Your task to perform on an android device: See recent photos Image 0: 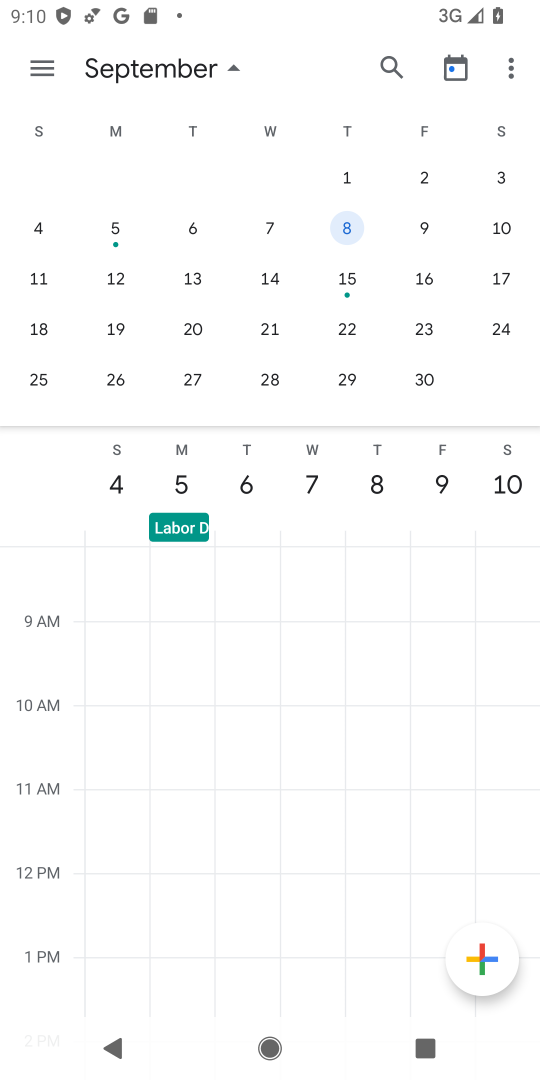
Step 0: press home button
Your task to perform on an android device: See recent photos Image 1: 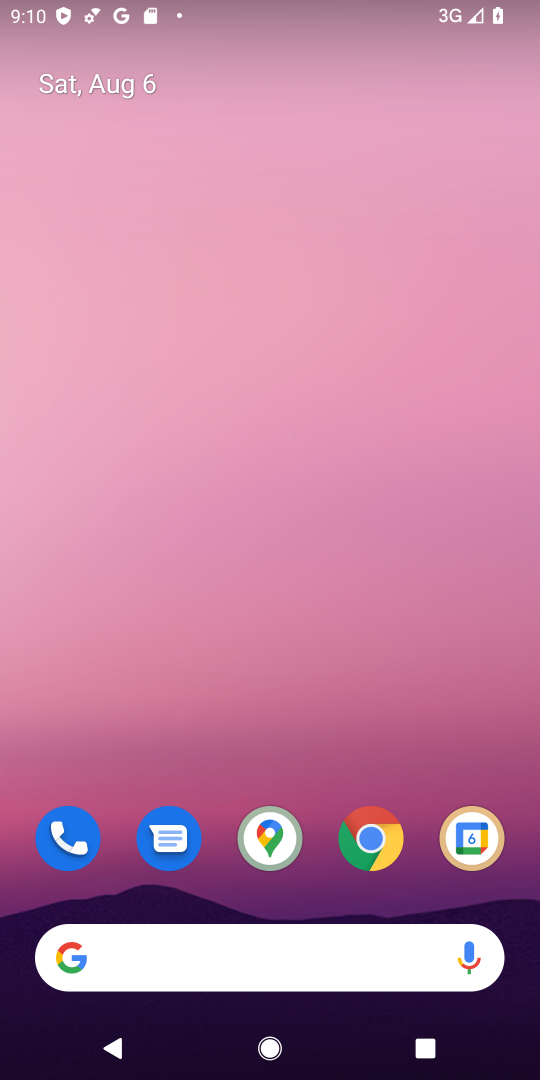
Step 1: drag from (339, 764) to (281, 28)
Your task to perform on an android device: See recent photos Image 2: 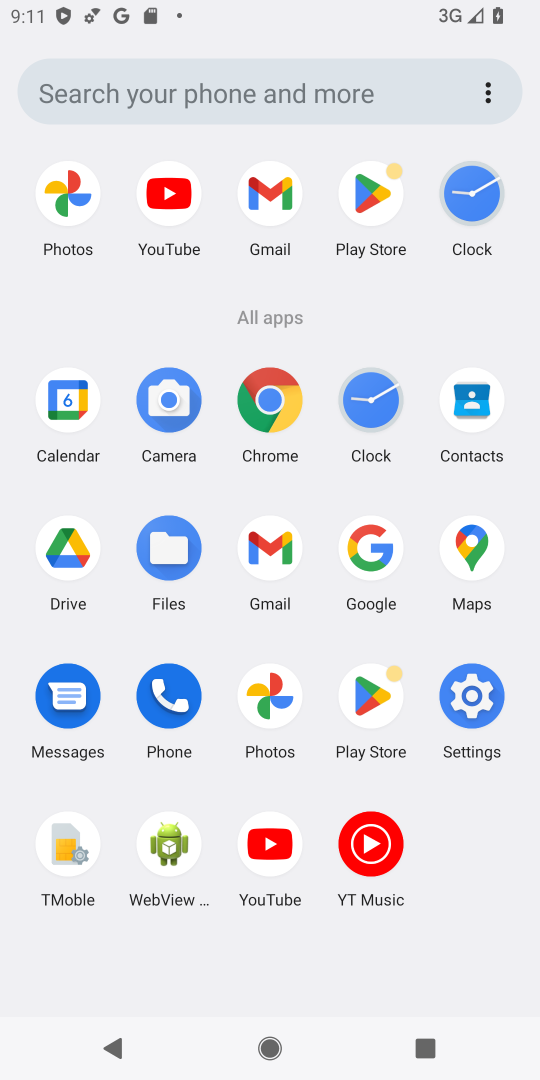
Step 2: click (270, 696)
Your task to perform on an android device: See recent photos Image 3: 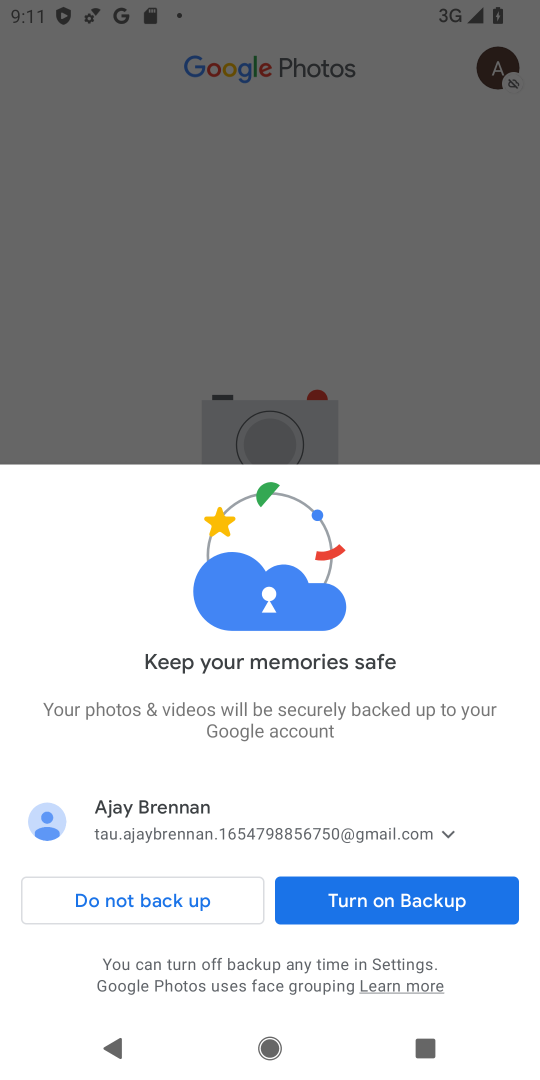
Step 3: click (401, 896)
Your task to perform on an android device: See recent photos Image 4: 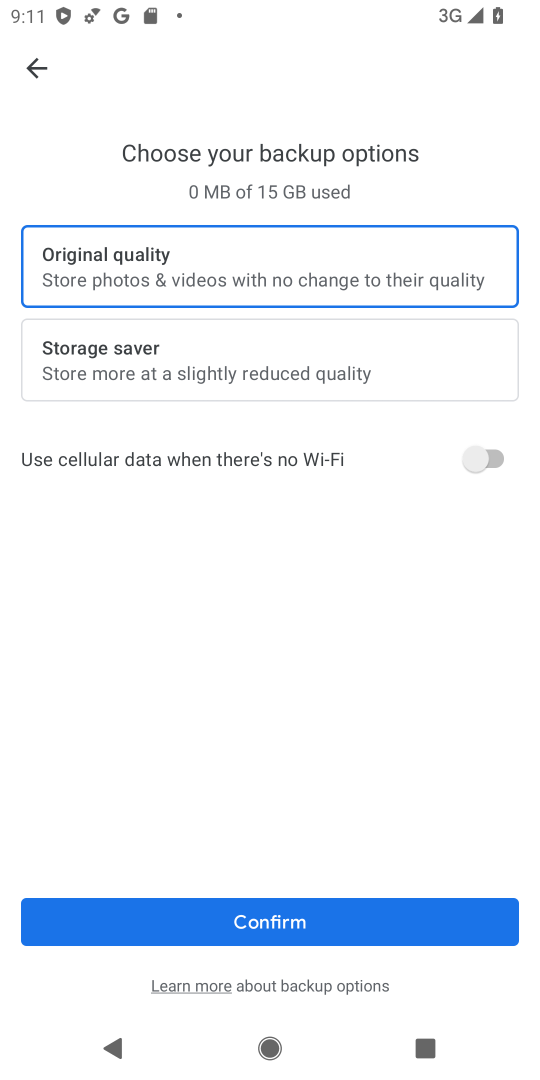
Step 4: click (431, 929)
Your task to perform on an android device: See recent photos Image 5: 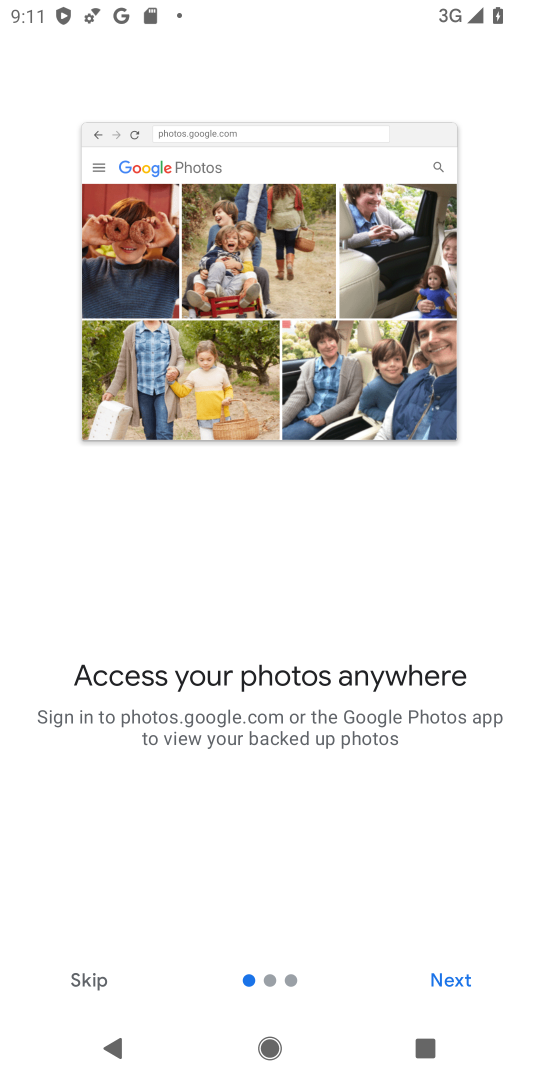
Step 5: click (438, 984)
Your task to perform on an android device: See recent photos Image 6: 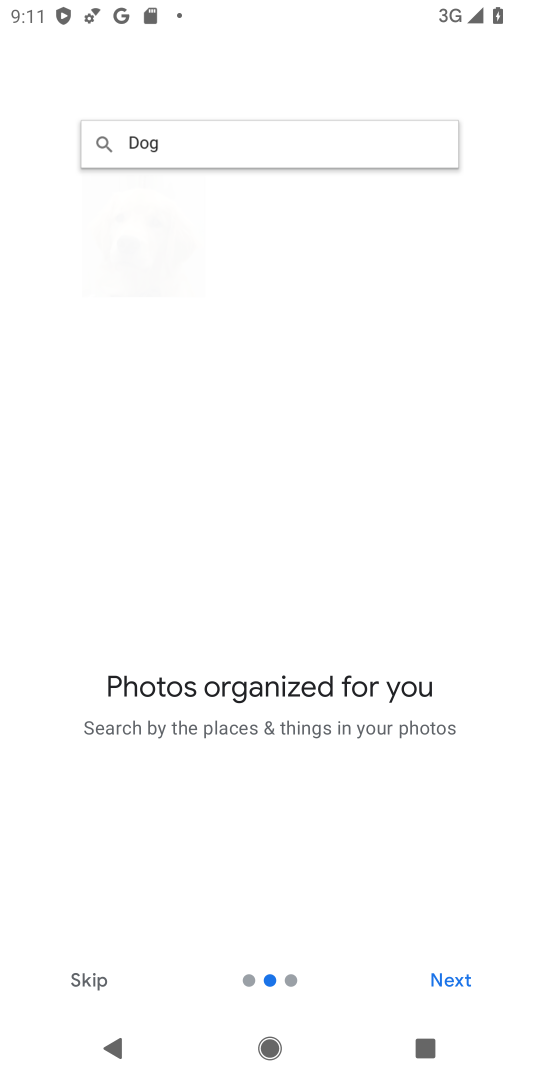
Step 6: click (438, 984)
Your task to perform on an android device: See recent photos Image 7: 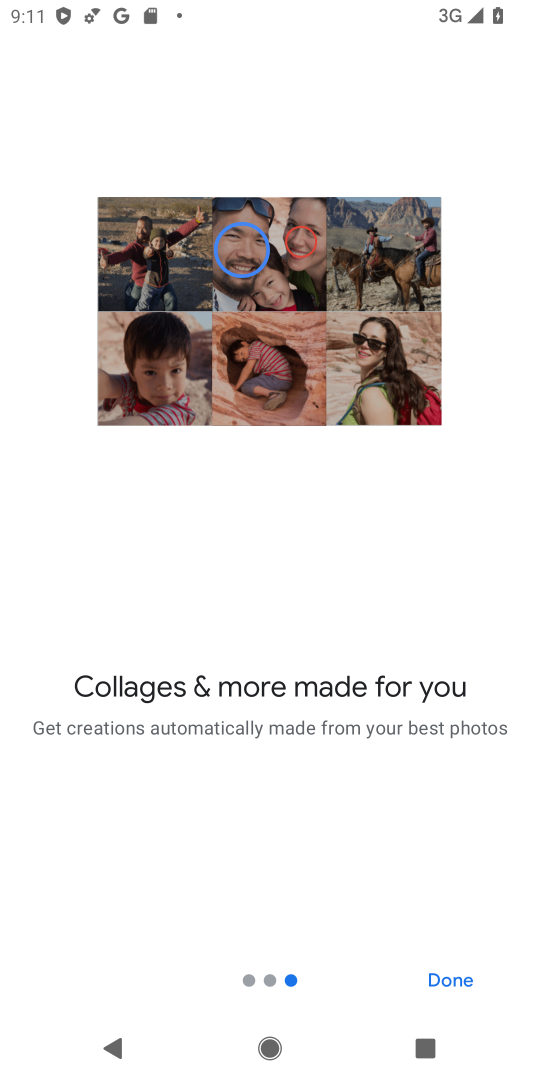
Step 7: click (438, 984)
Your task to perform on an android device: See recent photos Image 8: 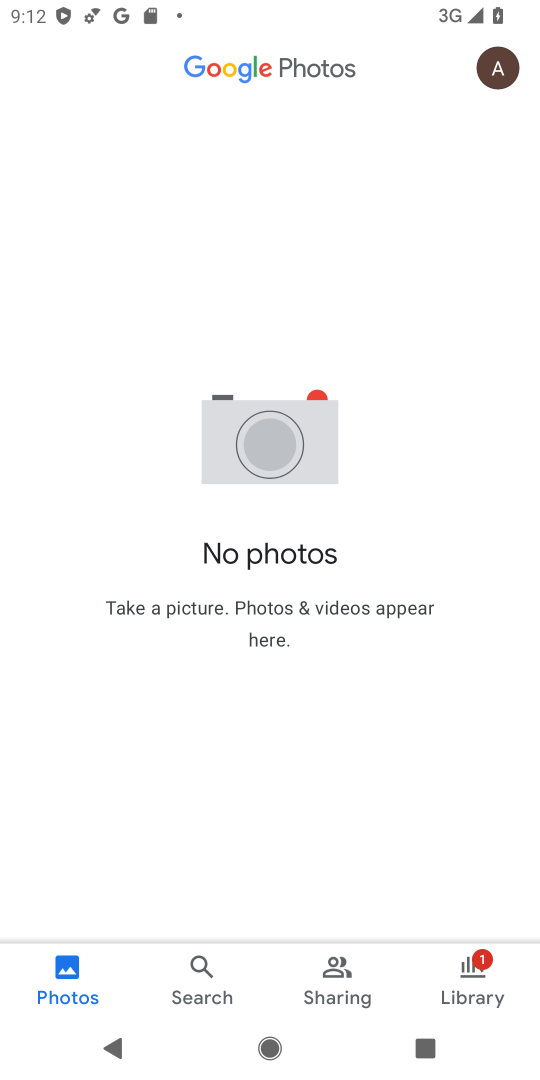
Step 8: task complete